Your task to perform on an android device: toggle airplane mode Image 0: 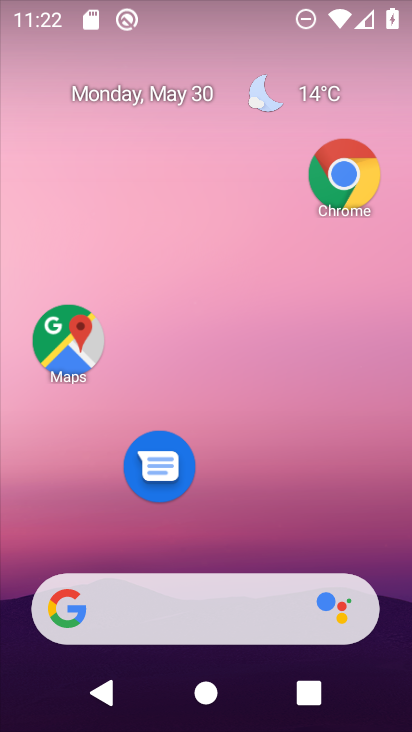
Step 0: drag from (267, 523) to (256, 96)
Your task to perform on an android device: toggle airplane mode Image 1: 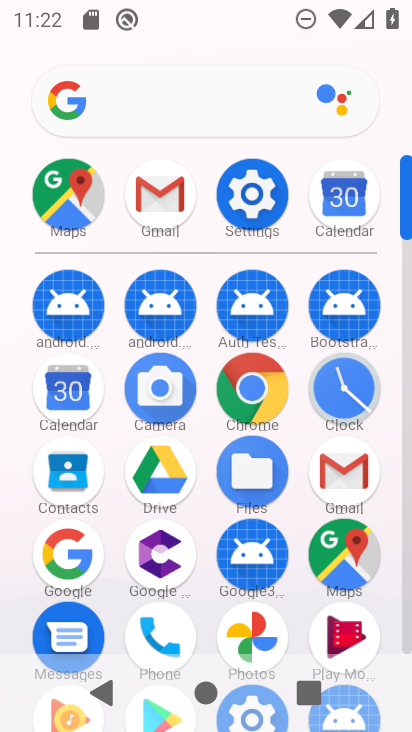
Step 1: click (244, 170)
Your task to perform on an android device: toggle airplane mode Image 2: 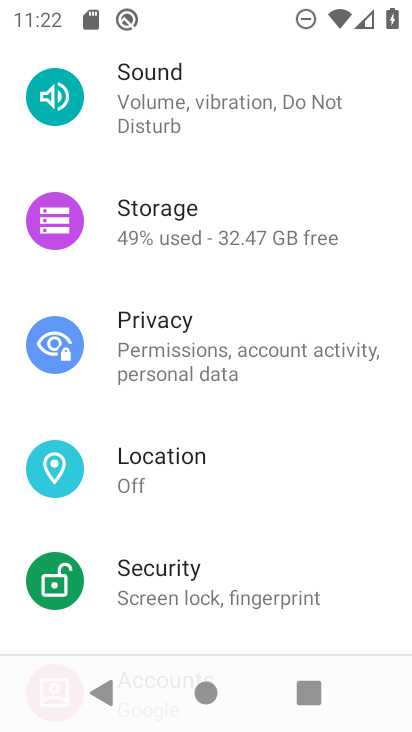
Step 2: drag from (223, 154) to (245, 594)
Your task to perform on an android device: toggle airplane mode Image 3: 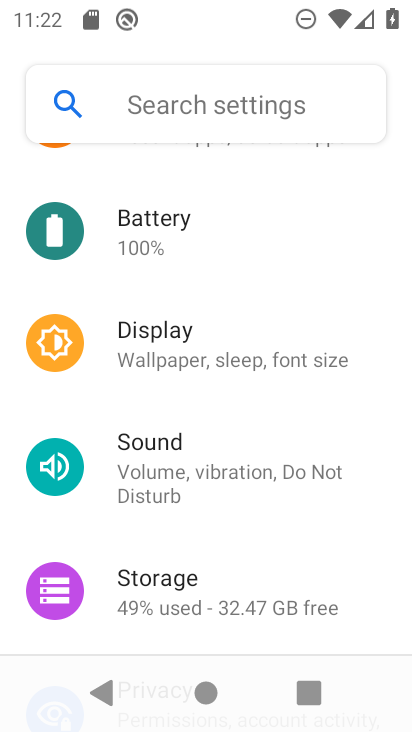
Step 3: drag from (265, 271) to (284, 528)
Your task to perform on an android device: toggle airplane mode Image 4: 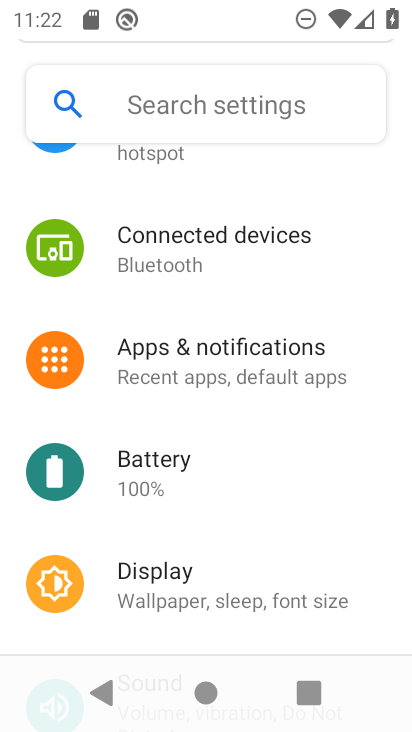
Step 4: drag from (269, 228) to (316, 501)
Your task to perform on an android device: toggle airplane mode Image 5: 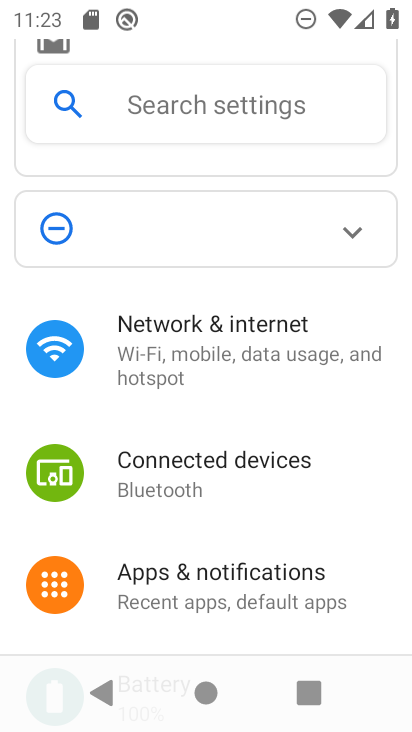
Step 5: click (248, 322)
Your task to perform on an android device: toggle airplane mode Image 6: 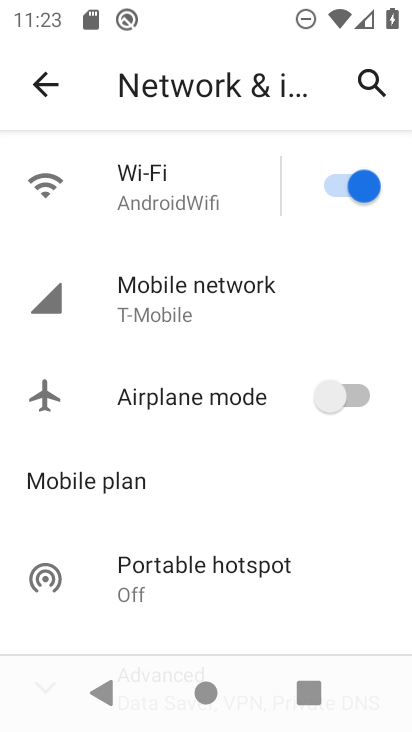
Step 6: click (308, 393)
Your task to perform on an android device: toggle airplane mode Image 7: 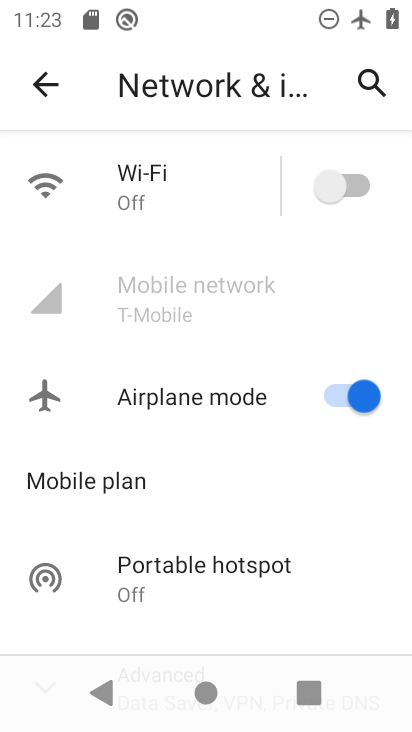
Step 7: task complete